Your task to perform on an android device: stop showing notifications on the lock screen Image 0: 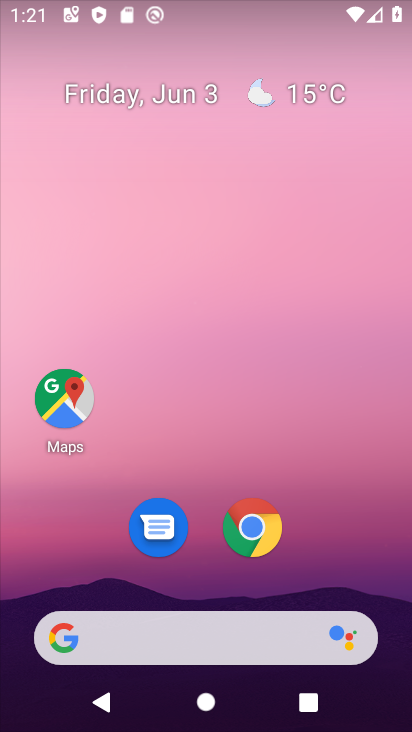
Step 0: drag from (328, 587) to (293, 244)
Your task to perform on an android device: stop showing notifications on the lock screen Image 1: 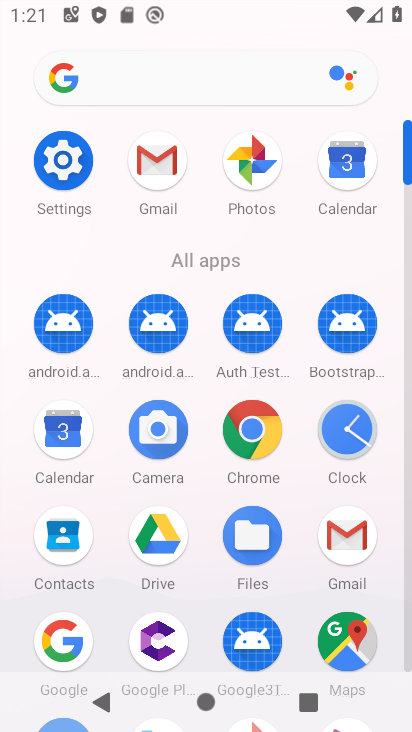
Step 1: click (65, 156)
Your task to perform on an android device: stop showing notifications on the lock screen Image 2: 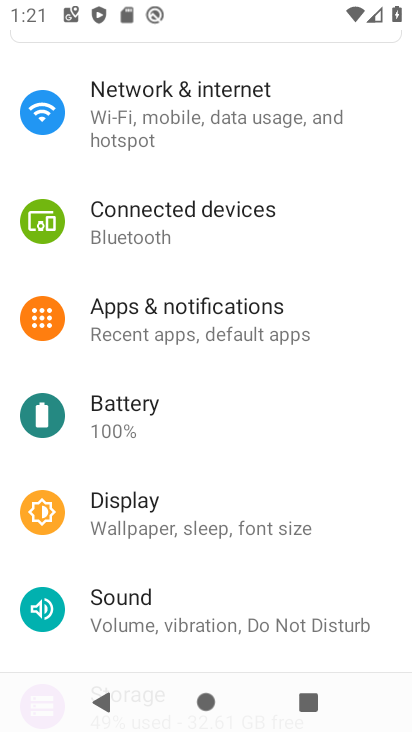
Step 2: click (220, 322)
Your task to perform on an android device: stop showing notifications on the lock screen Image 3: 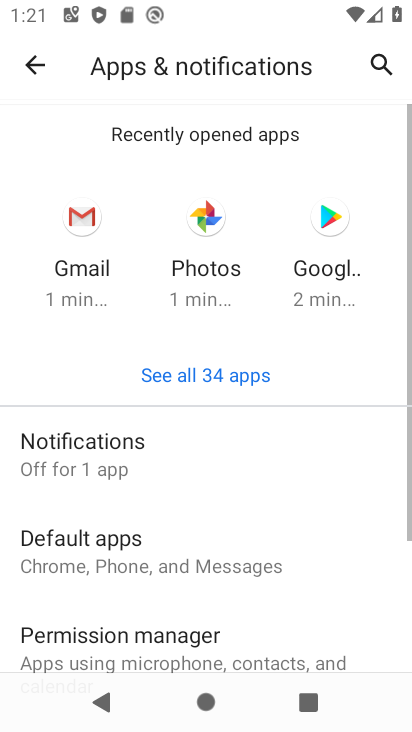
Step 3: click (207, 448)
Your task to perform on an android device: stop showing notifications on the lock screen Image 4: 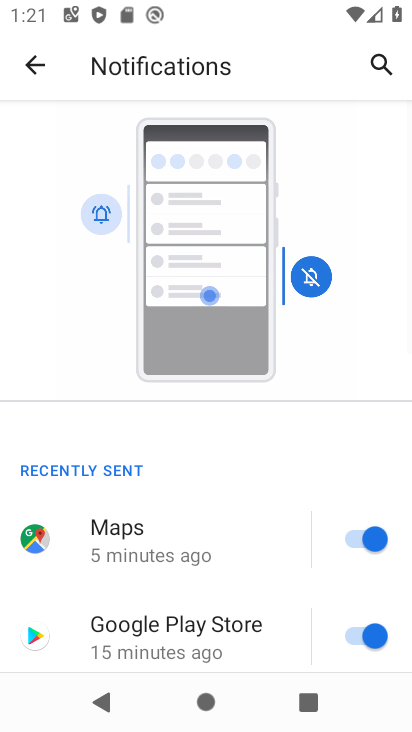
Step 4: drag from (218, 478) to (215, 79)
Your task to perform on an android device: stop showing notifications on the lock screen Image 5: 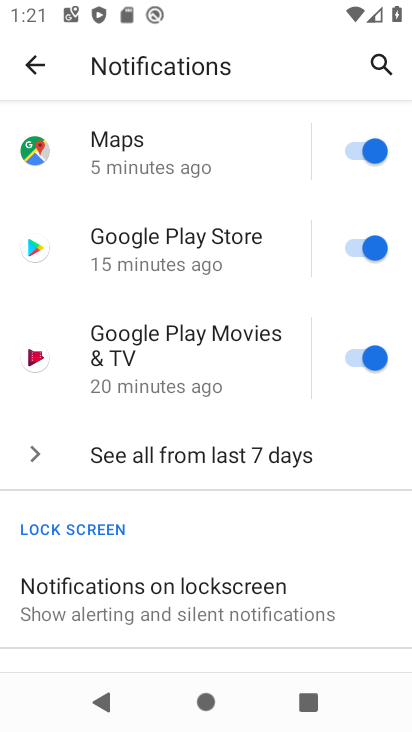
Step 5: click (239, 602)
Your task to perform on an android device: stop showing notifications on the lock screen Image 6: 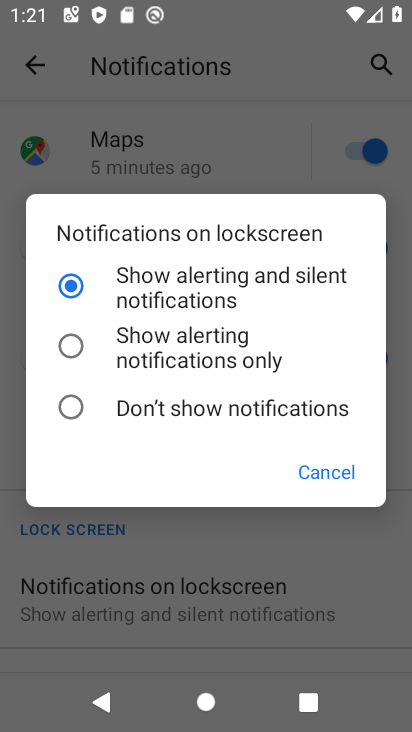
Step 6: click (210, 419)
Your task to perform on an android device: stop showing notifications on the lock screen Image 7: 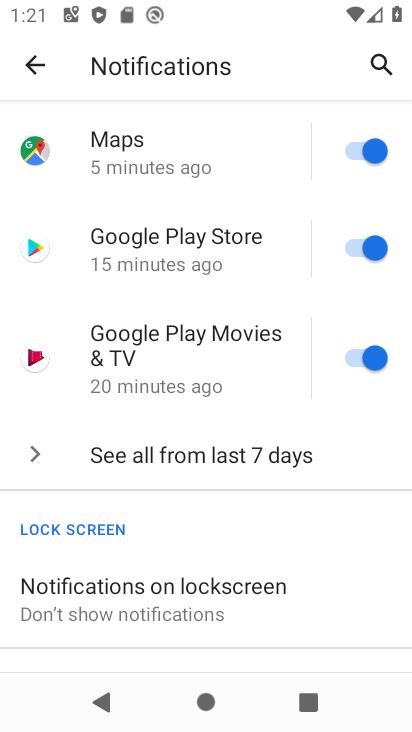
Step 7: task complete